Your task to perform on an android device: search for starred emails in the gmail app Image 0: 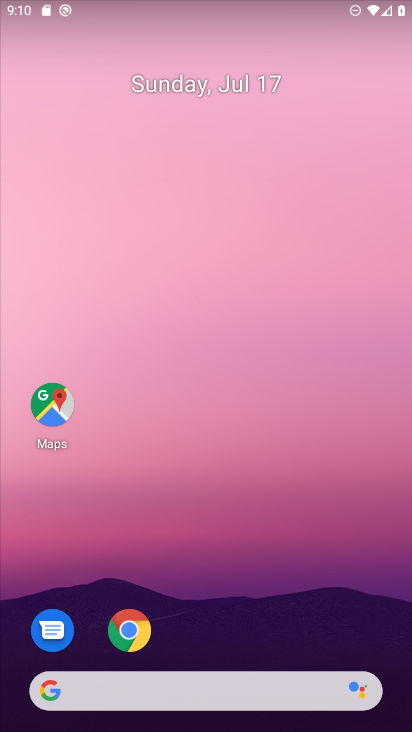
Step 0: drag from (353, 594) to (202, 3)
Your task to perform on an android device: search for starred emails in the gmail app Image 1: 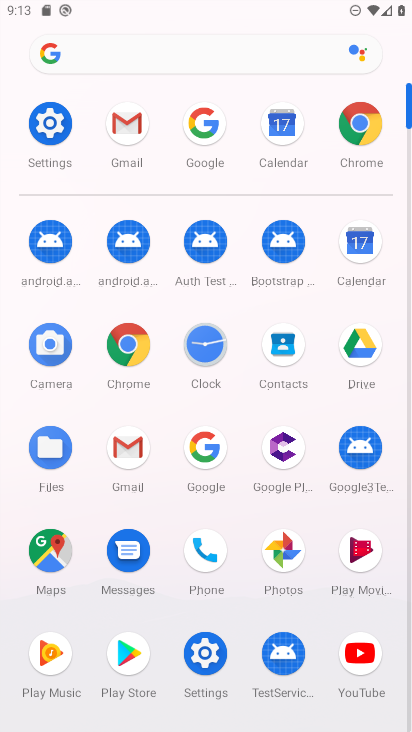
Step 1: click (138, 444)
Your task to perform on an android device: search for starred emails in the gmail app Image 2: 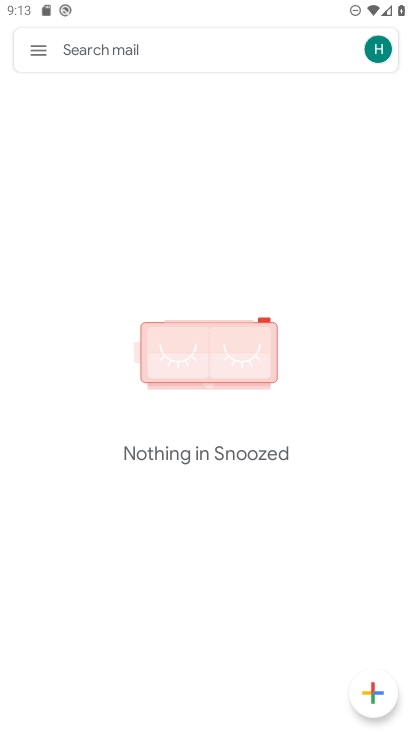
Step 2: click (28, 46)
Your task to perform on an android device: search for starred emails in the gmail app Image 3: 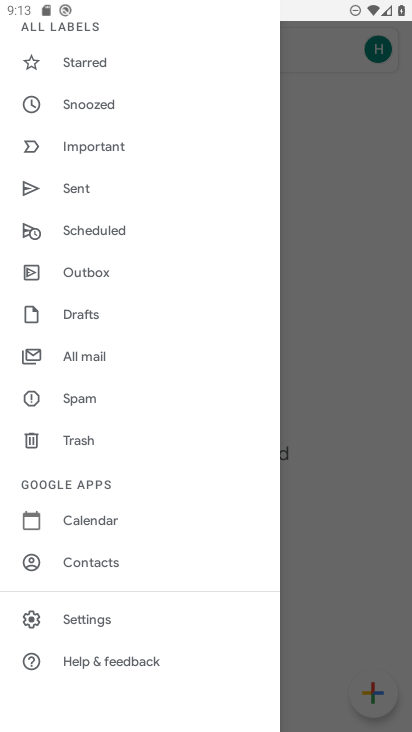
Step 3: click (97, 62)
Your task to perform on an android device: search for starred emails in the gmail app Image 4: 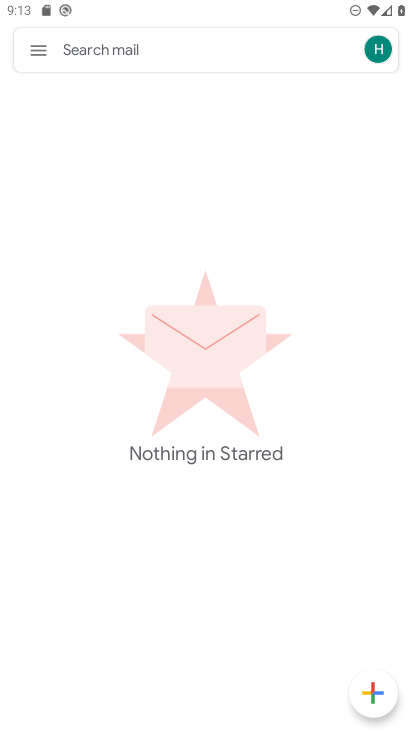
Step 4: task complete